Your task to perform on an android device: Show me popular games on the Play Store Image 0: 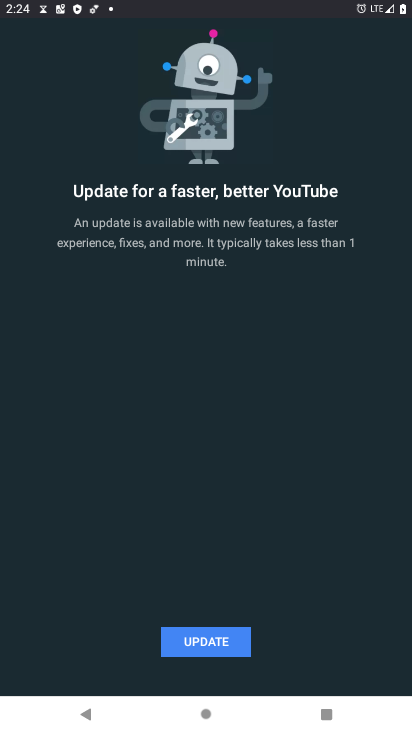
Step 0: press home button
Your task to perform on an android device: Show me popular games on the Play Store Image 1: 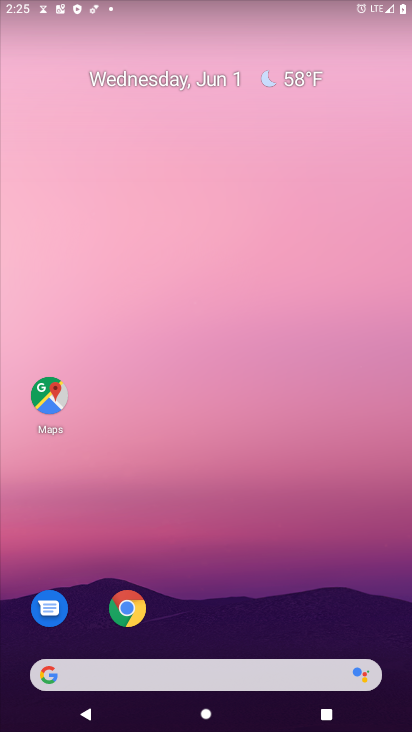
Step 1: drag from (211, 593) to (205, 22)
Your task to perform on an android device: Show me popular games on the Play Store Image 2: 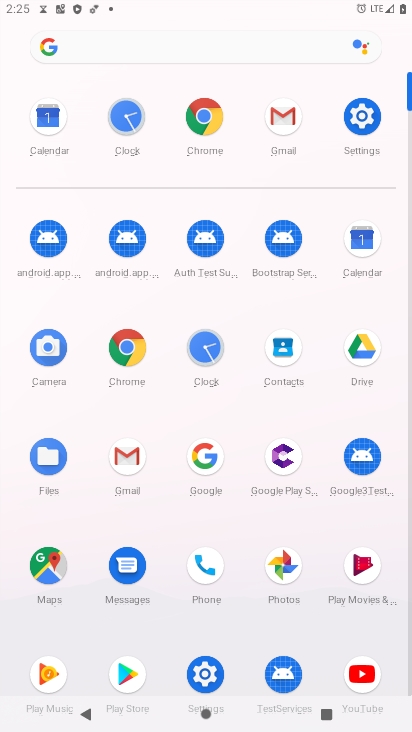
Step 2: click (115, 666)
Your task to perform on an android device: Show me popular games on the Play Store Image 3: 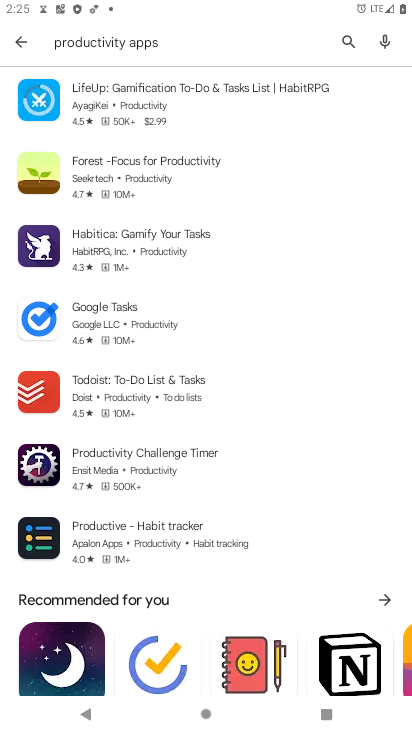
Step 3: click (357, 42)
Your task to perform on an android device: Show me popular games on the Play Store Image 4: 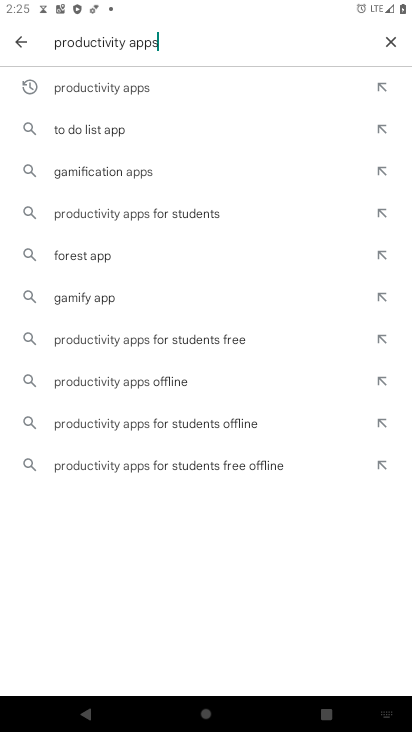
Step 4: click (388, 32)
Your task to perform on an android device: Show me popular games on the Play Store Image 5: 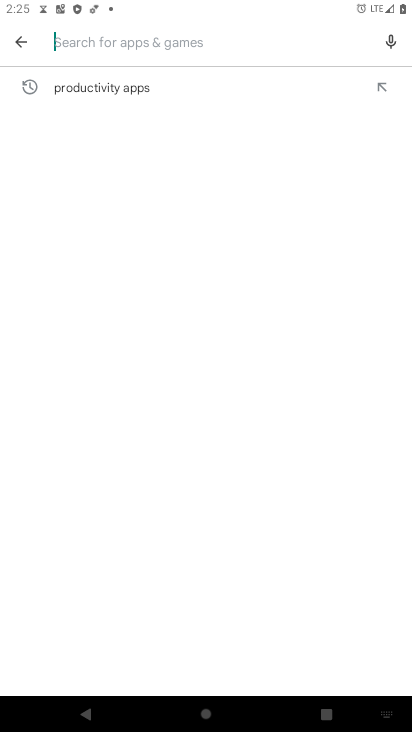
Step 5: type "popular games"
Your task to perform on an android device: Show me popular games on the Play Store Image 6: 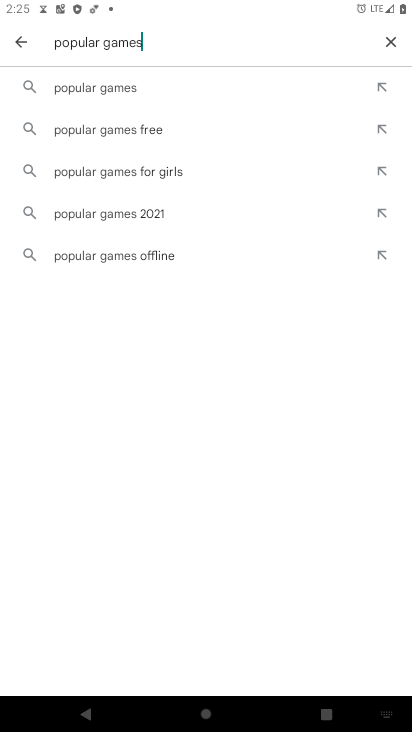
Step 6: click (94, 71)
Your task to perform on an android device: Show me popular games on the Play Store Image 7: 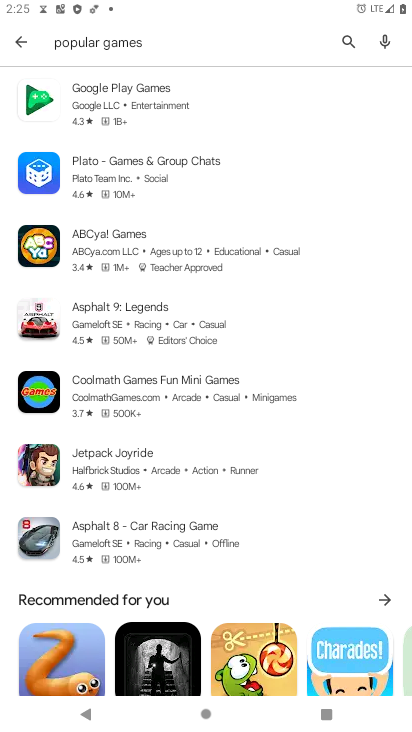
Step 7: task complete